Your task to perform on an android device: Go to display settings Image 0: 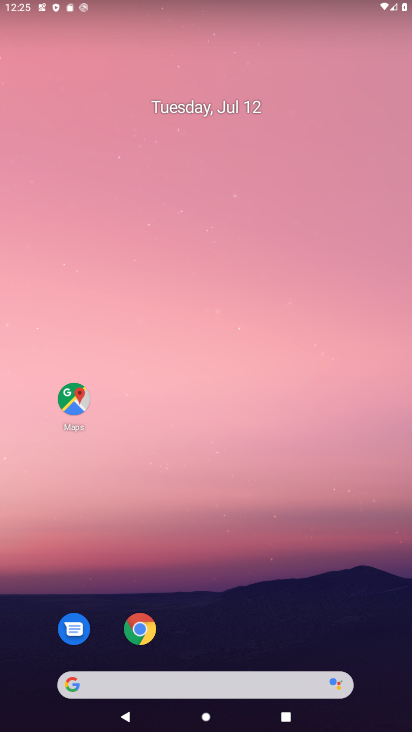
Step 0: drag from (250, 649) to (127, 28)
Your task to perform on an android device: Go to display settings Image 1: 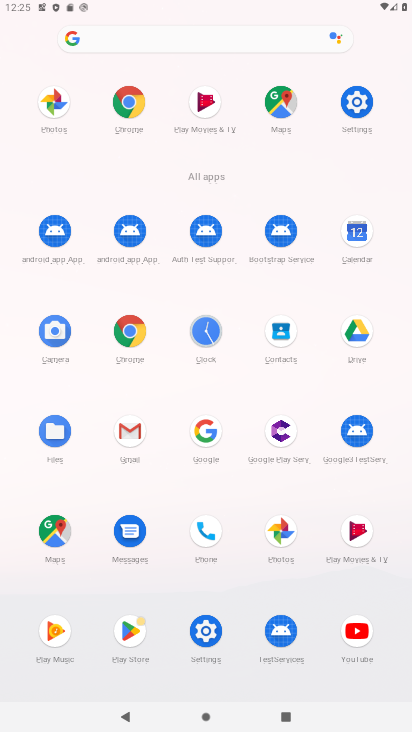
Step 1: click (348, 105)
Your task to perform on an android device: Go to display settings Image 2: 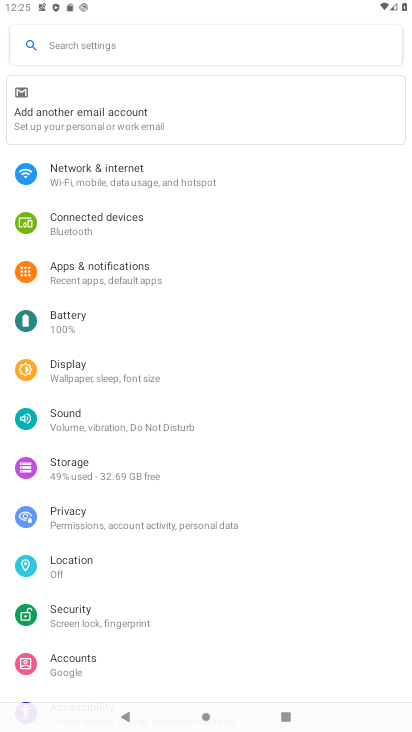
Step 2: click (92, 372)
Your task to perform on an android device: Go to display settings Image 3: 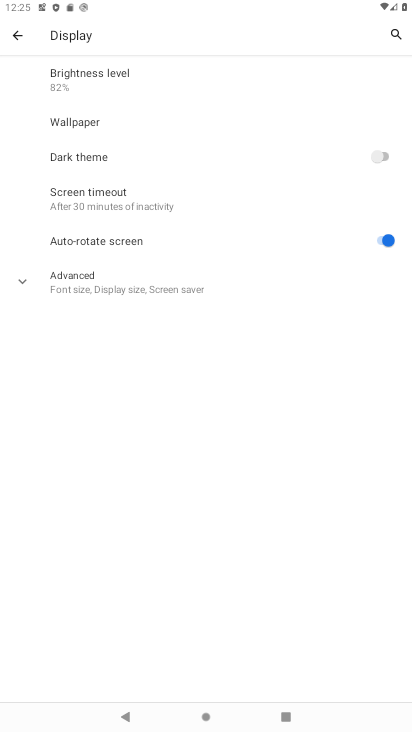
Step 3: task complete